Your task to perform on an android device: Open display settings Image 0: 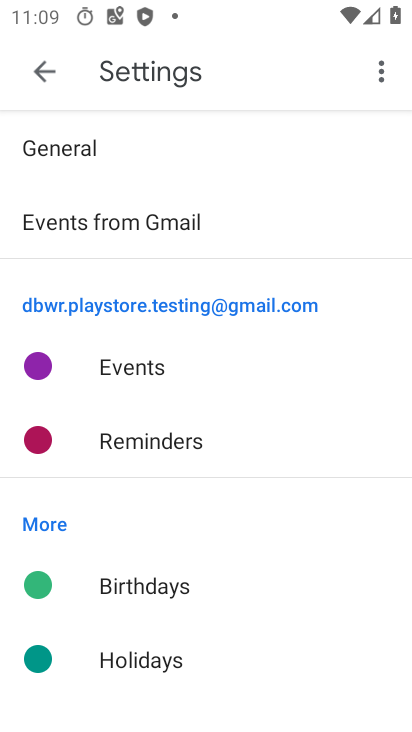
Step 0: press back button
Your task to perform on an android device: Open display settings Image 1: 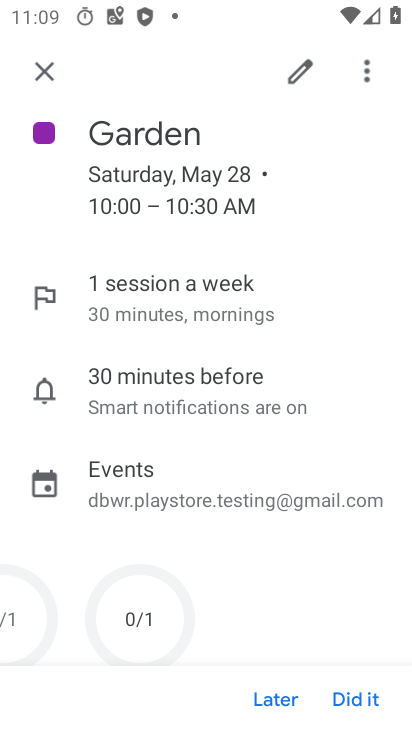
Step 1: press home button
Your task to perform on an android device: Open display settings Image 2: 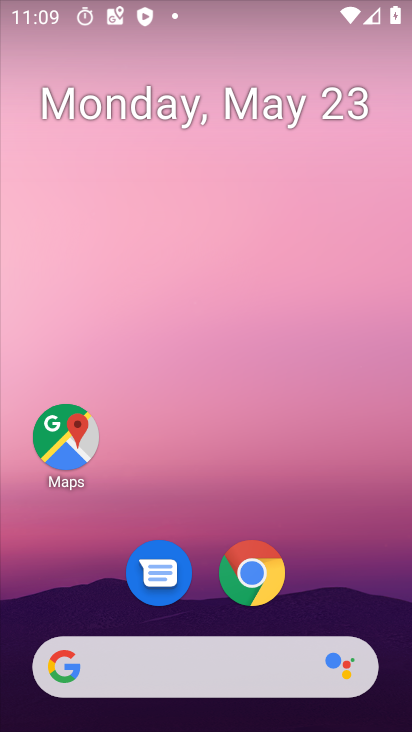
Step 2: drag from (343, 599) to (268, 174)
Your task to perform on an android device: Open display settings Image 3: 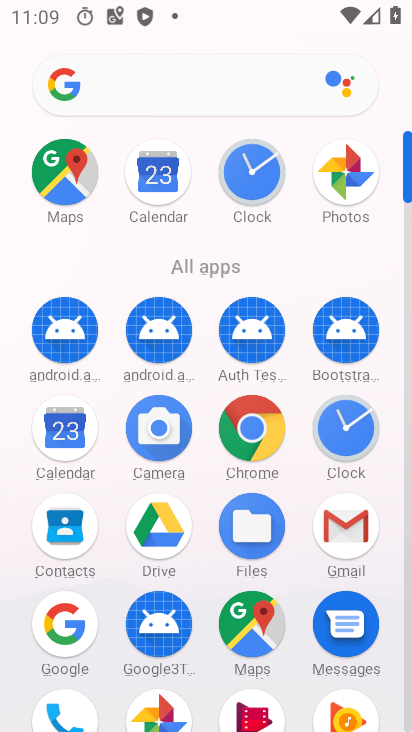
Step 3: drag from (106, 570) to (120, 348)
Your task to perform on an android device: Open display settings Image 4: 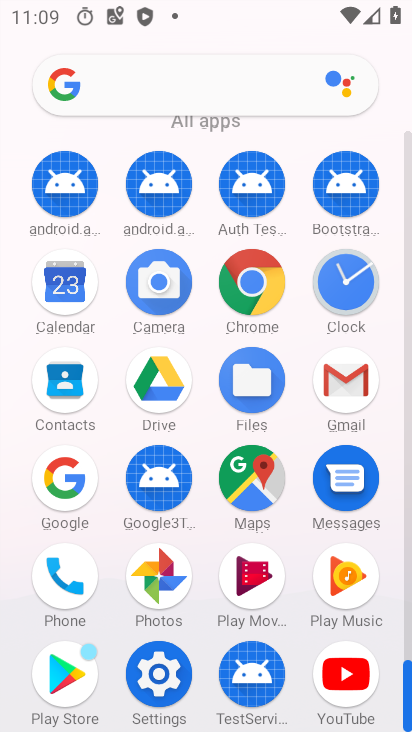
Step 4: click (157, 674)
Your task to perform on an android device: Open display settings Image 5: 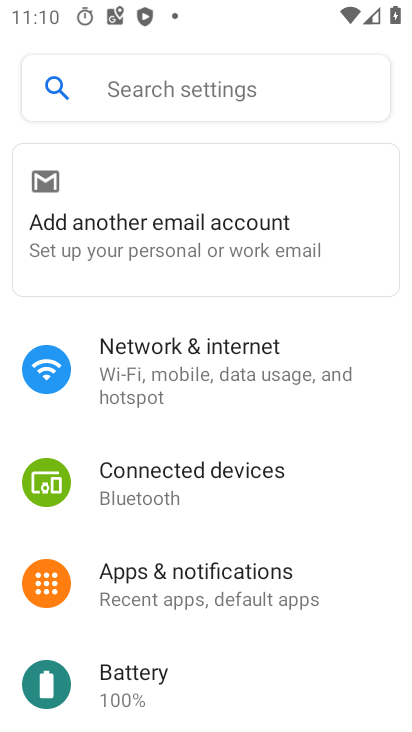
Step 5: drag from (173, 534) to (218, 413)
Your task to perform on an android device: Open display settings Image 6: 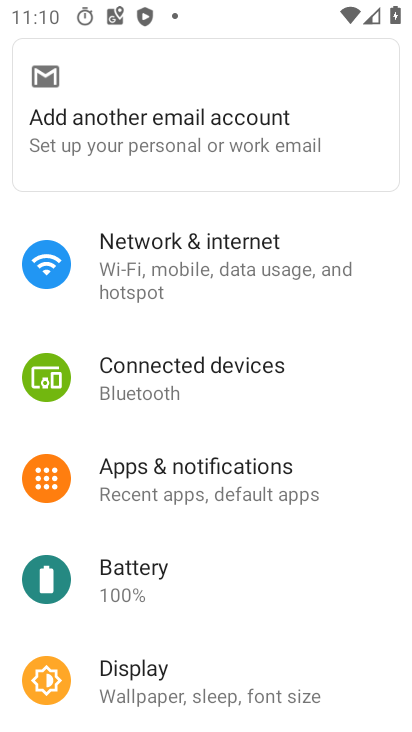
Step 6: drag from (163, 637) to (221, 525)
Your task to perform on an android device: Open display settings Image 7: 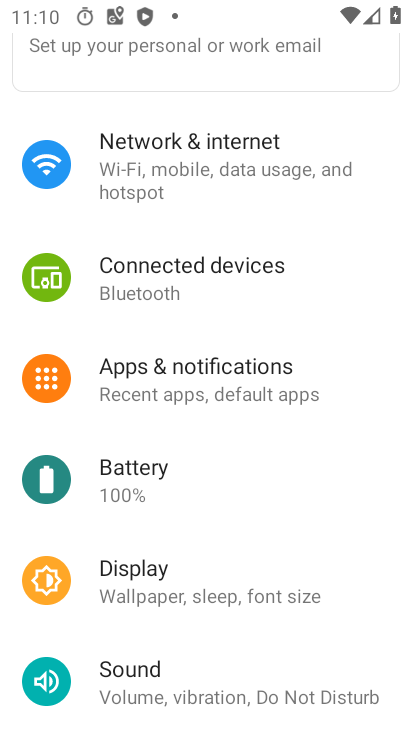
Step 7: click (154, 583)
Your task to perform on an android device: Open display settings Image 8: 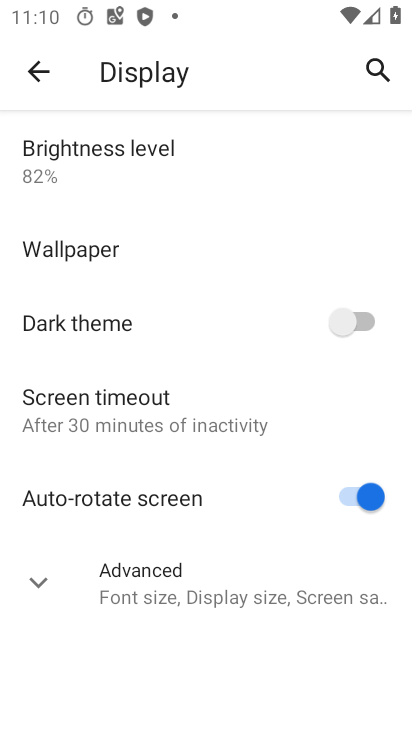
Step 8: task complete